Your task to perform on an android device: open app "Facebook" (install if not already installed) Image 0: 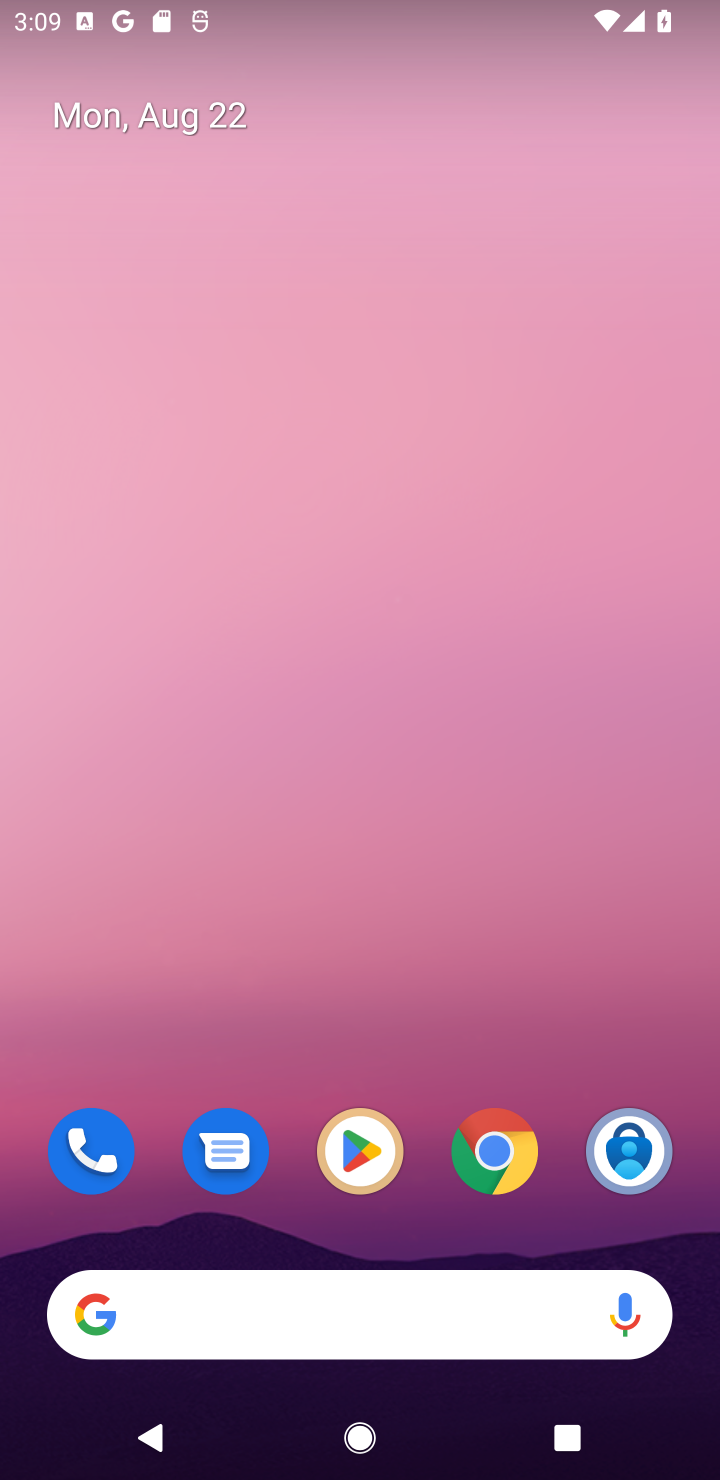
Step 0: click (350, 1146)
Your task to perform on an android device: open app "Facebook" (install if not already installed) Image 1: 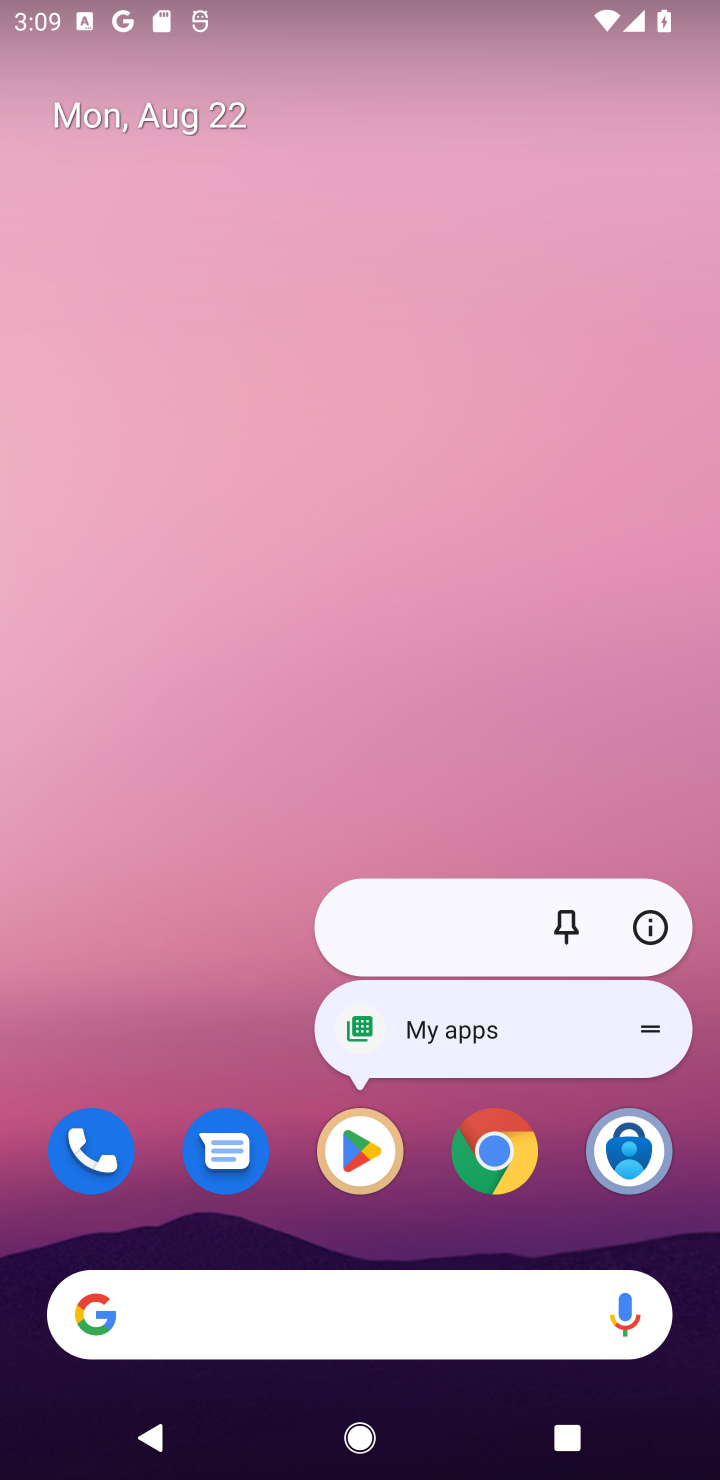
Step 1: click (350, 1150)
Your task to perform on an android device: open app "Facebook" (install if not already installed) Image 2: 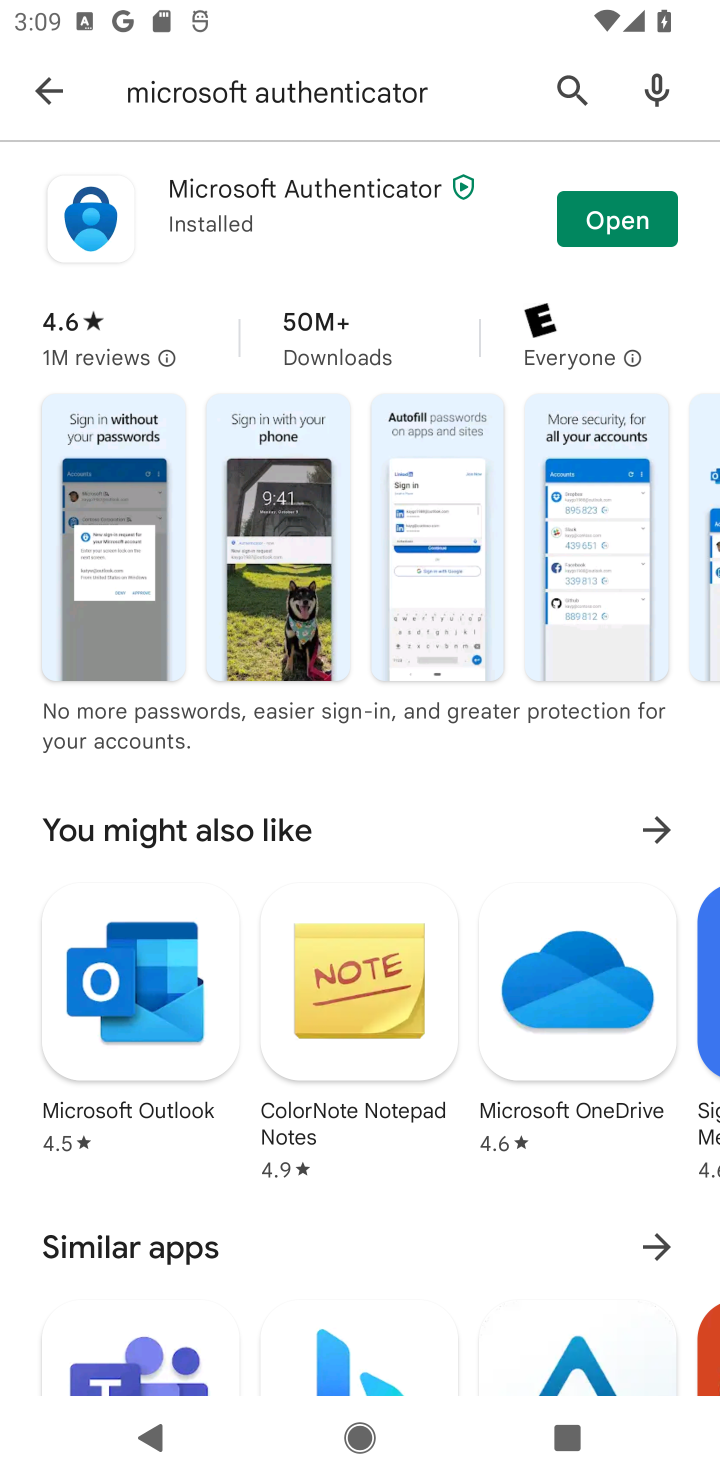
Step 2: click (554, 71)
Your task to perform on an android device: open app "Facebook" (install if not already installed) Image 3: 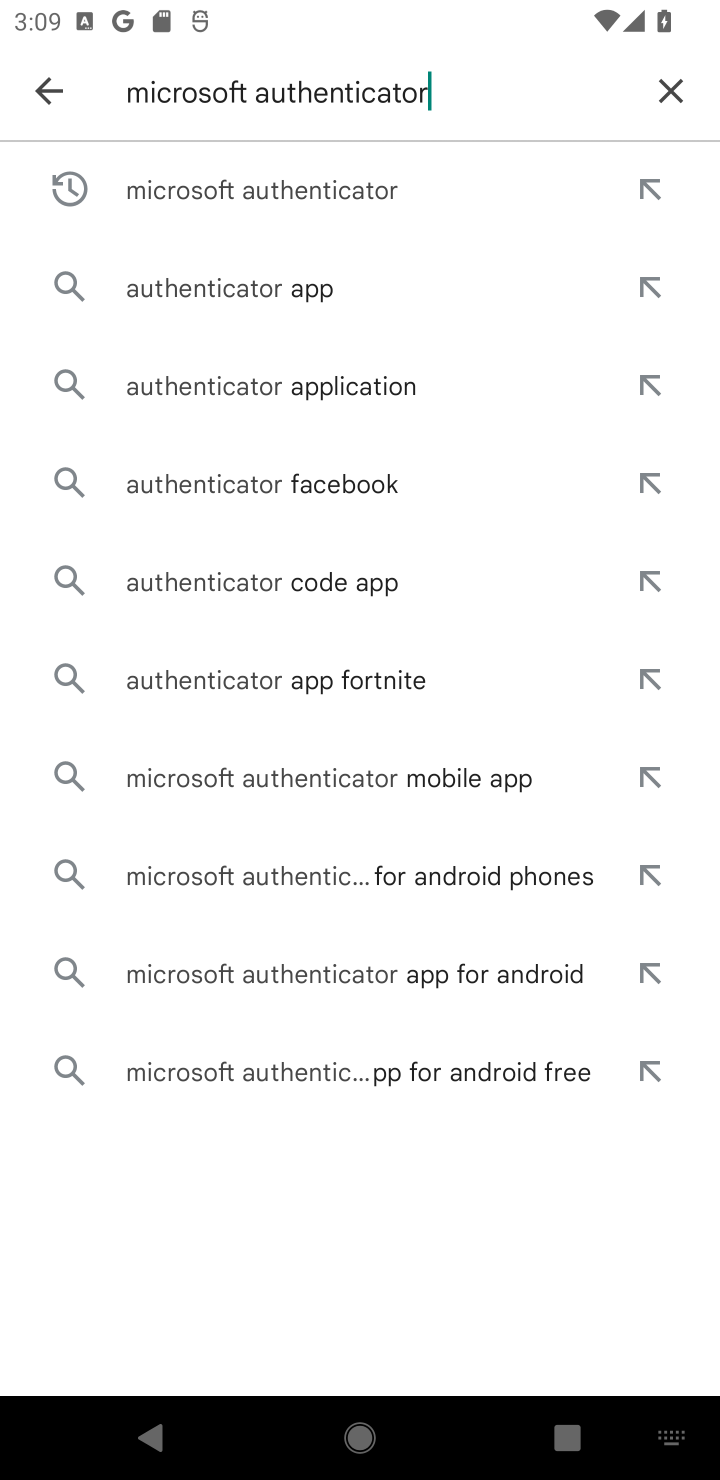
Step 3: click (668, 91)
Your task to perform on an android device: open app "Facebook" (install if not already installed) Image 4: 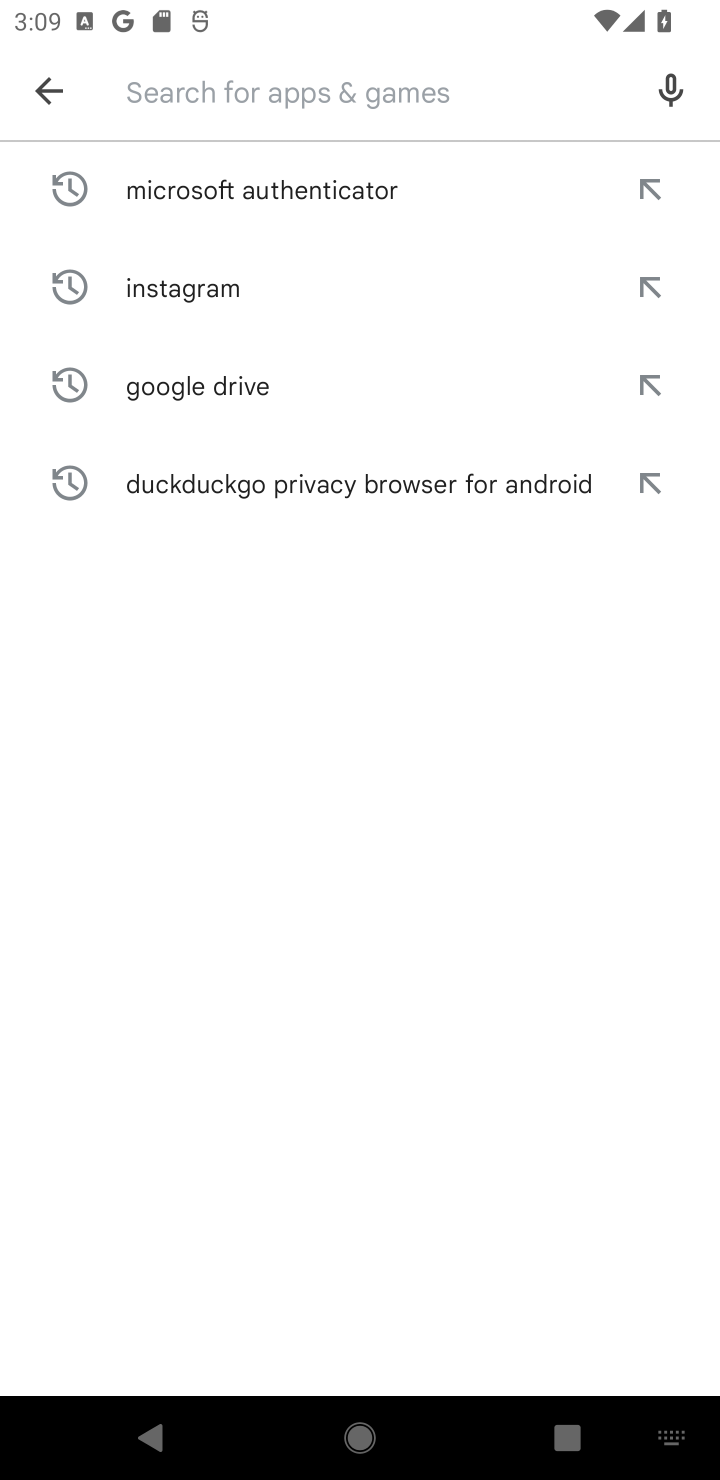
Step 4: type "Facebook"
Your task to perform on an android device: open app "Facebook" (install if not already installed) Image 5: 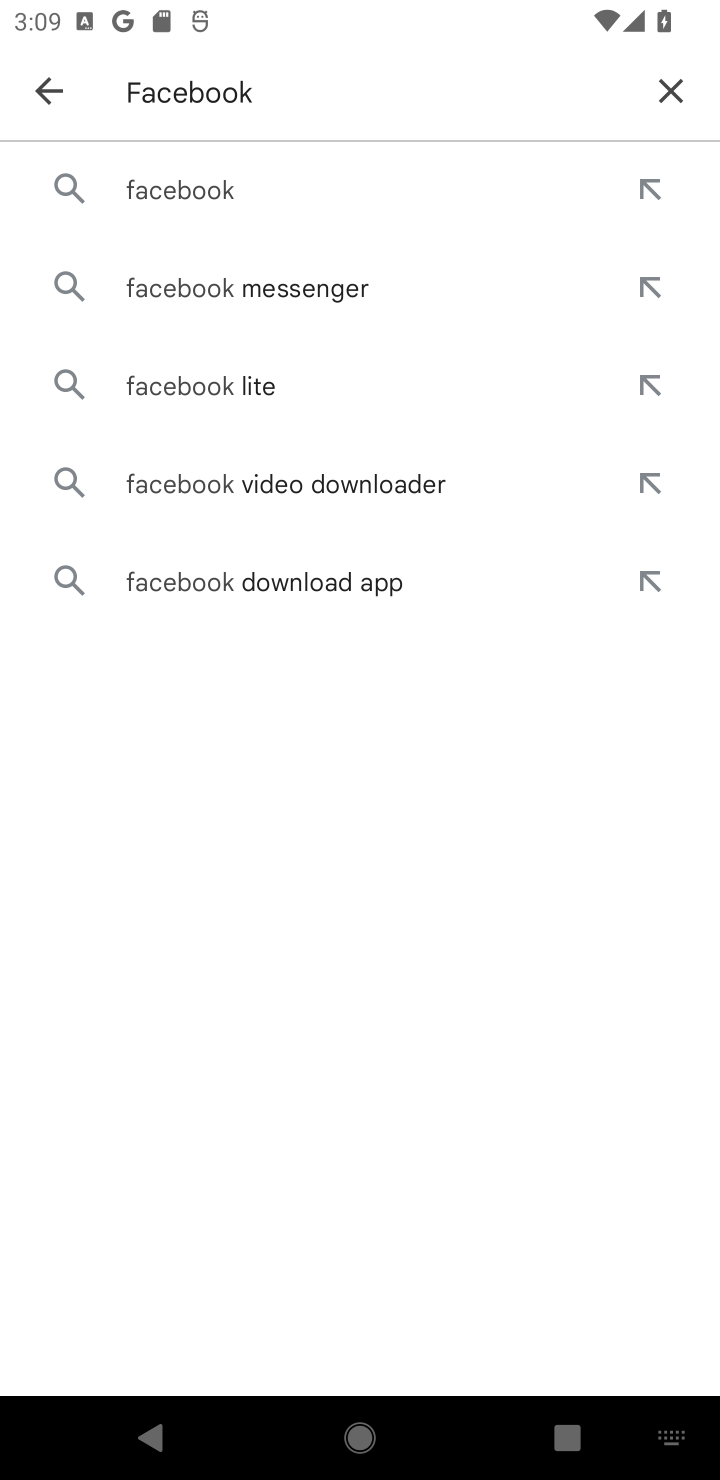
Step 5: click (189, 194)
Your task to perform on an android device: open app "Facebook" (install if not already installed) Image 6: 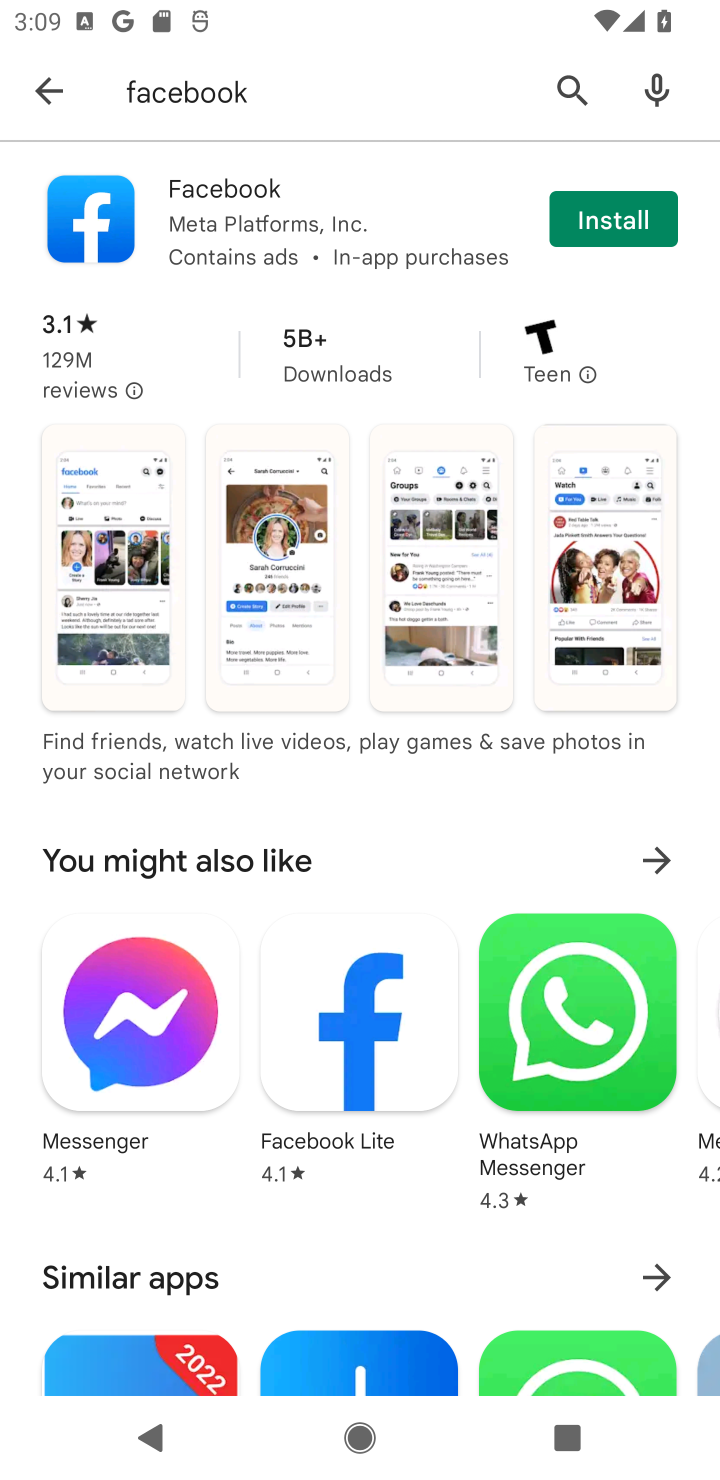
Step 6: click (601, 220)
Your task to perform on an android device: open app "Facebook" (install if not already installed) Image 7: 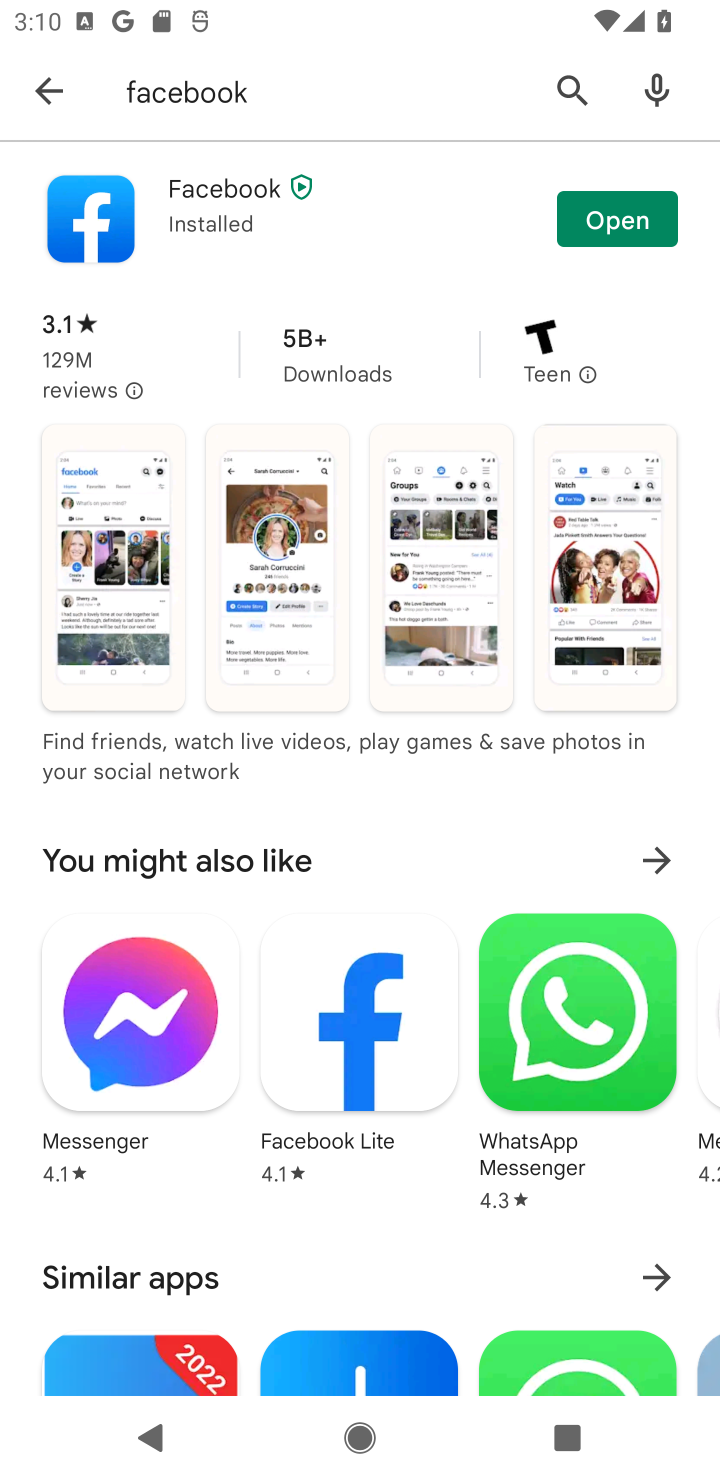
Step 7: click (640, 206)
Your task to perform on an android device: open app "Facebook" (install if not already installed) Image 8: 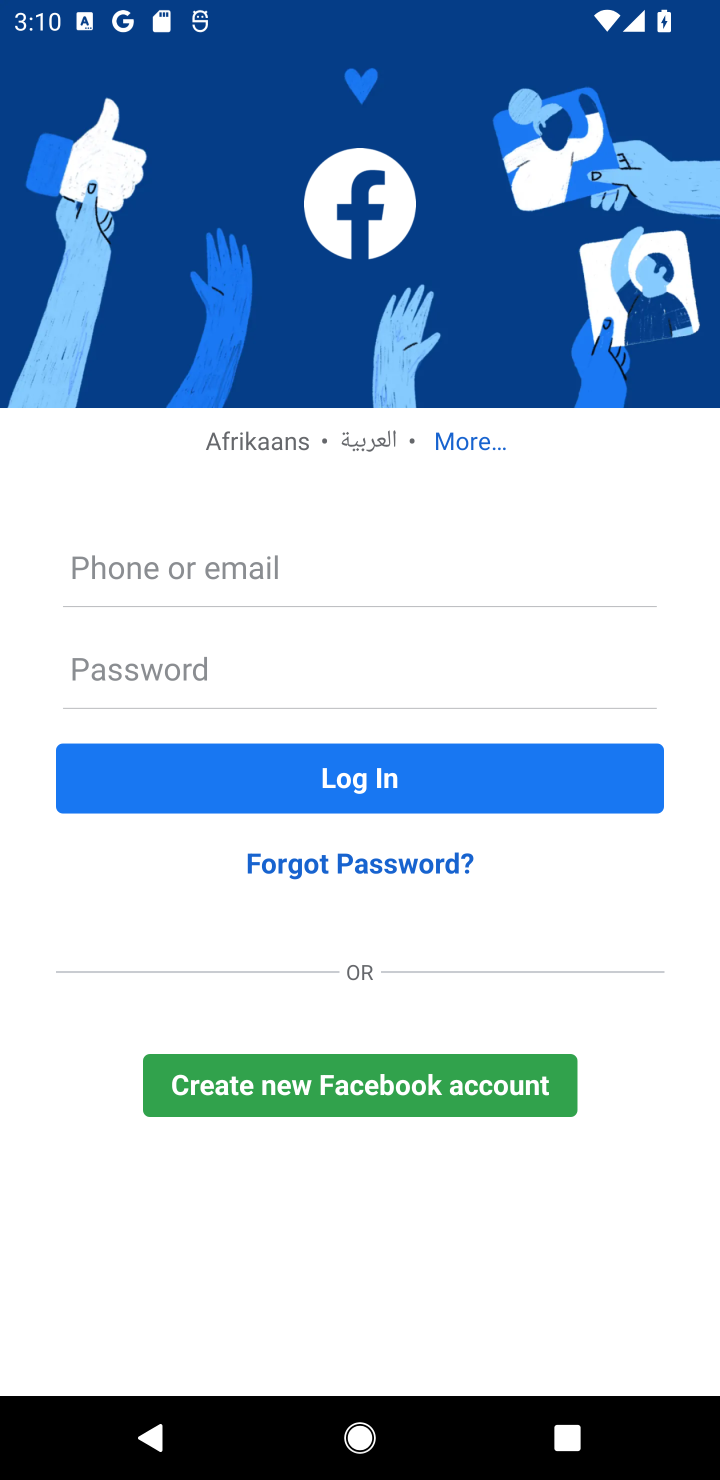
Step 8: task complete